Your task to perform on an android device: Go to sound settings Image 0: 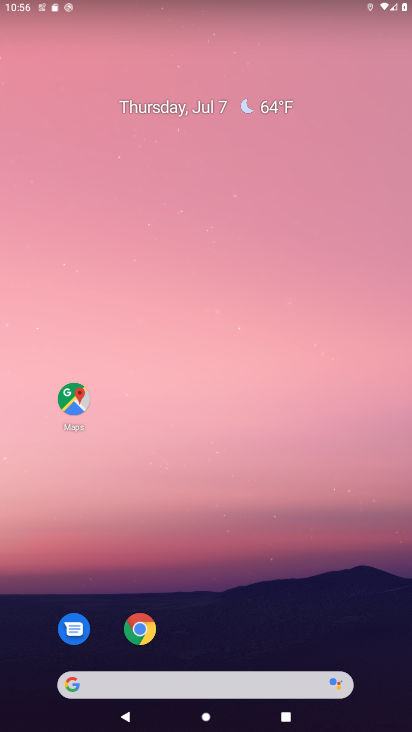
Step 0: drag from (231, 594) to (285, 16)
Your task to perform on an android device: Go to sound settings Image 1: 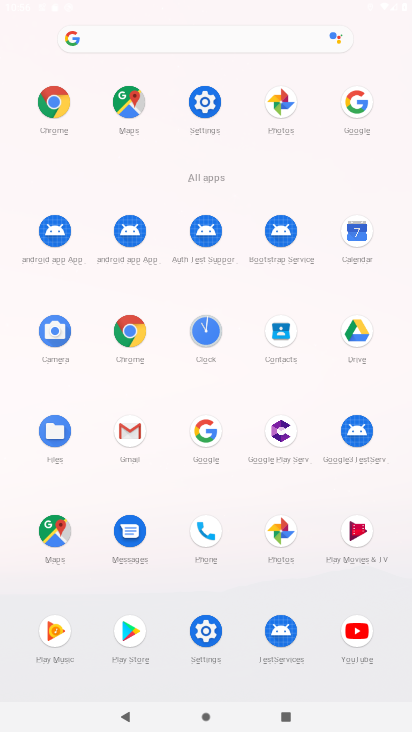
Step 1: click (206, 104)
Your task to perform on an android device: Go to sound settings Image 2: 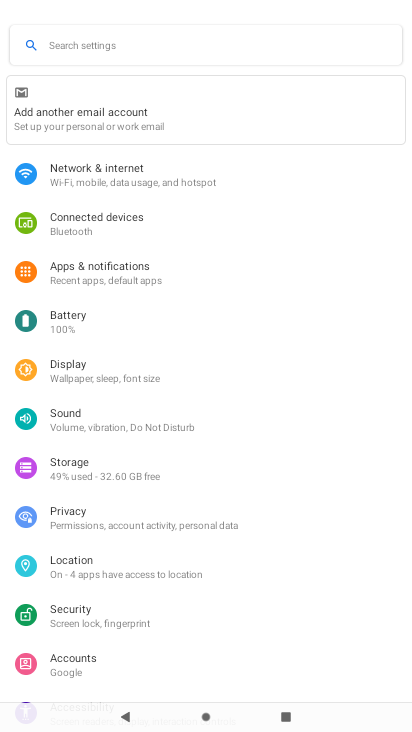
Step 2: click (75, 427)
Your task to perform on an android device: Go to sound settings Image 3: 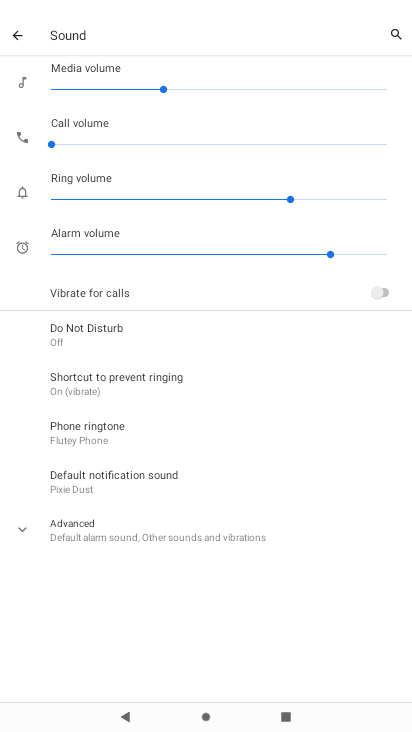
Step 3: task complete